Your task to perform on an android device: change keyboard looks Image 0: 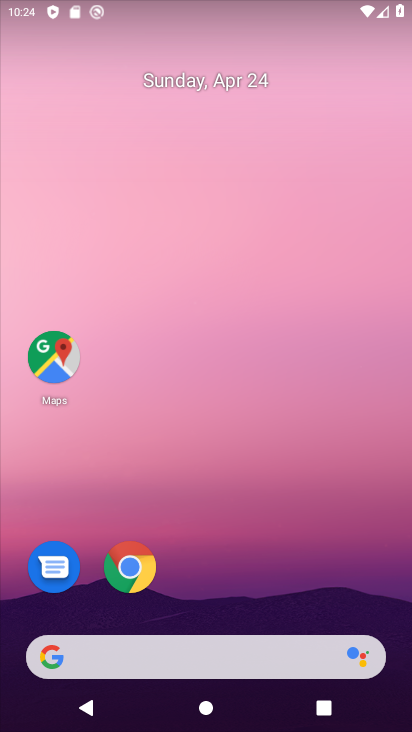
Step 0: drag from (9, 708) to (224, 98)
Your task to perform on an android device: change keyboard looks Image 1: 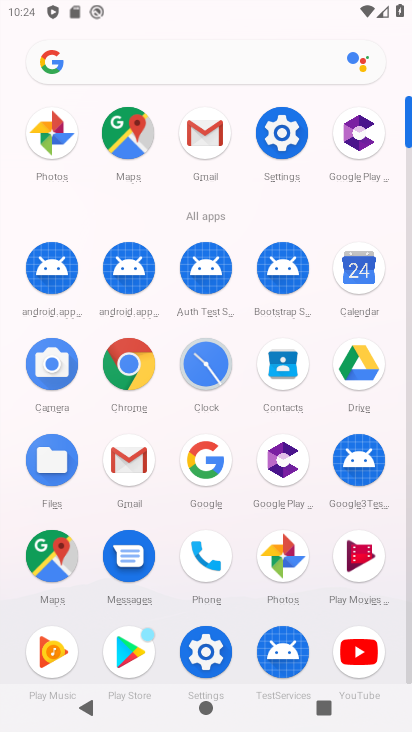
Step 1: click (193, 642)
Your task to perform on an android device: change keyboard looks Image 2: 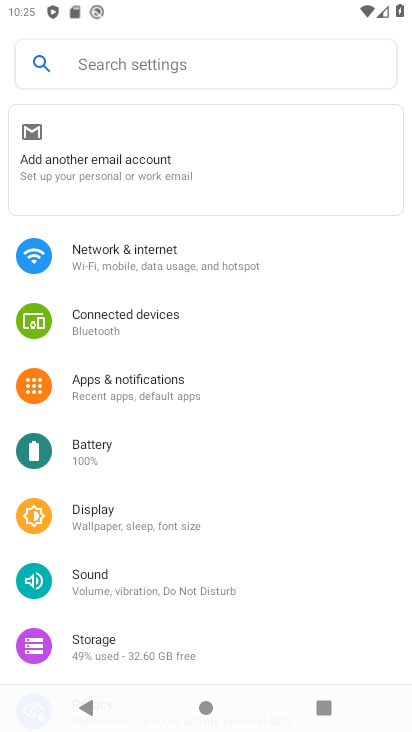
Step 2: drag from (121, 614) to (133, 268)
Your task to perform on an android device: change keyboard looks Image 3: 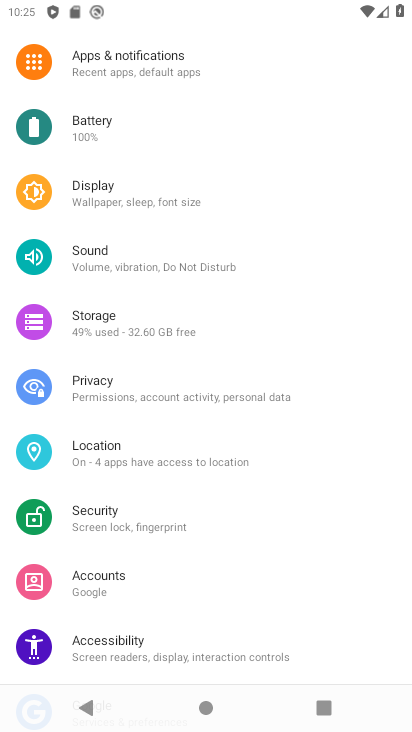
Step 3: click (157, 649)
Your task to perform on an android device: change keyboard looks Image 4: 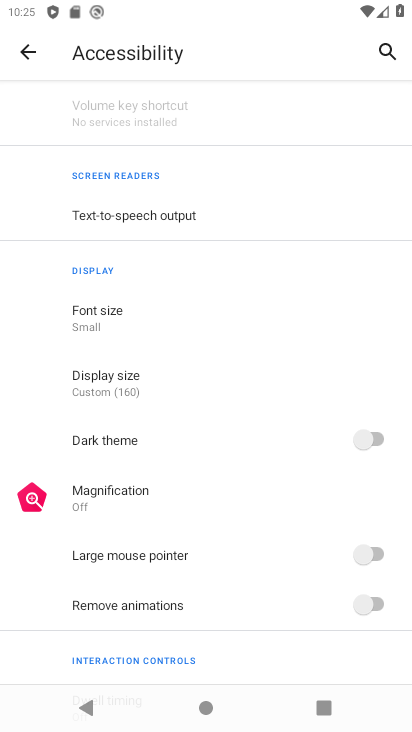
Step 4: press back button
Your task to perform on an android device: change keyboard looks Image 5: 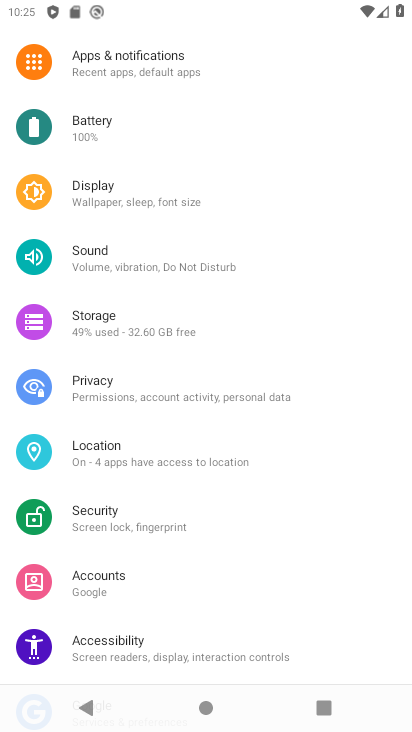
Step 5: drag from (192, 631) to (258, 151)
Your task to perform on an android device: change keyboard looks Image 6: 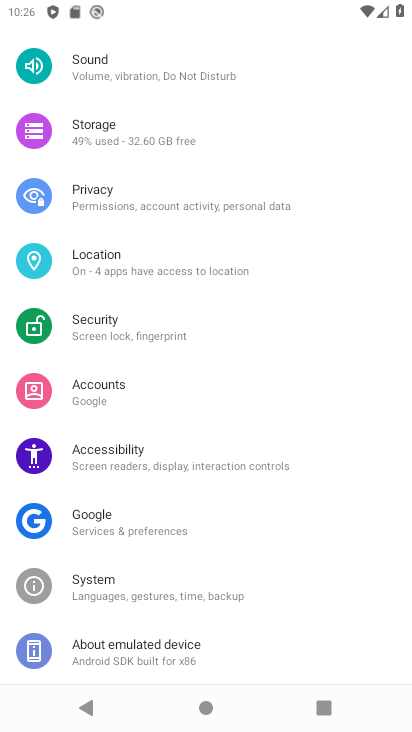
Step 6: click (218, 584)
Your task to perform on an android device: change keyboard looks Image 7: 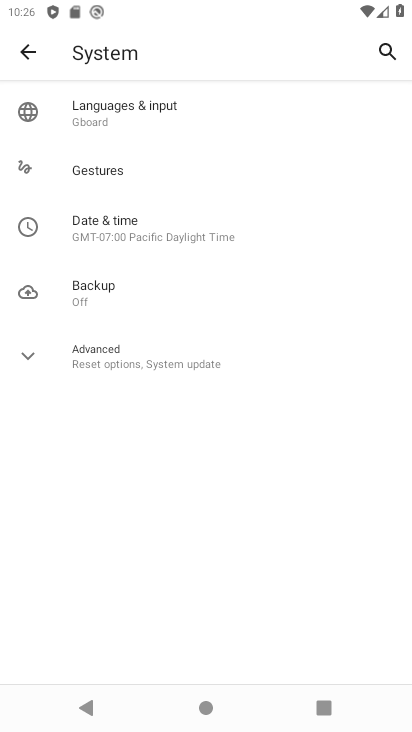
Step 7: click (142, 109)
Your task to perform on an android device: change keyboard looks Image 8: 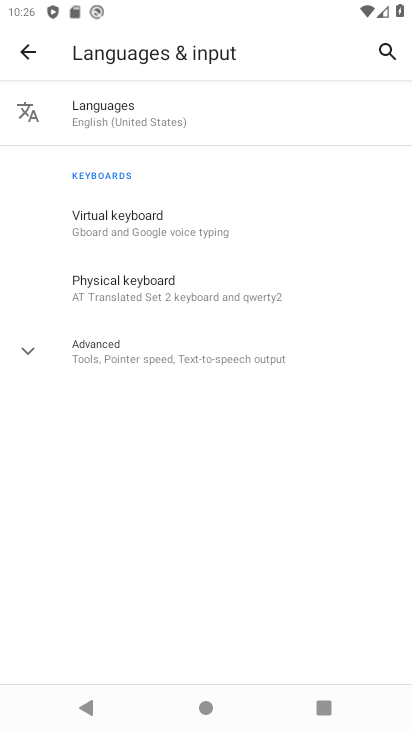
Step 8: click (135, 230)
Your task to perform on an android device: change keyboard looks Image 9: 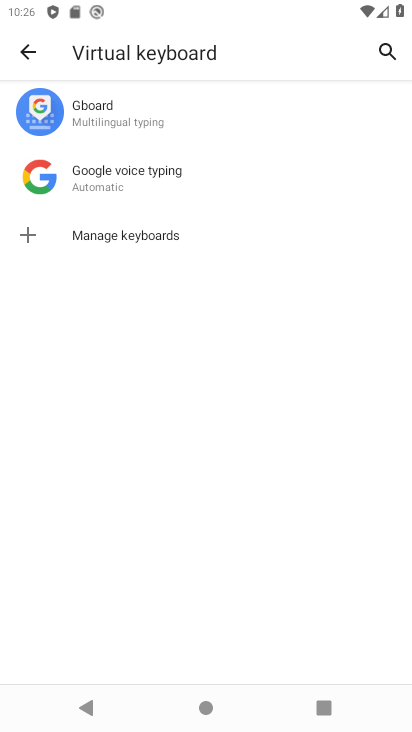
Step 9: click (151, 116)
Your task to perform on an android device: change keyboard looks Image 10: 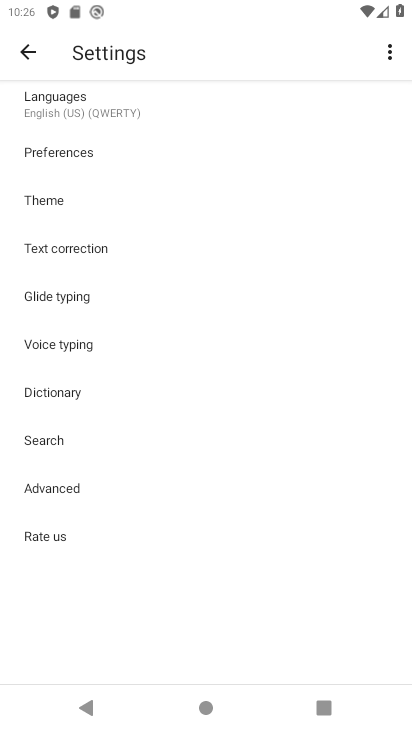
Step 10: click (80, 196)
Your task to perform on an android device: change keyboard looks Image 11: 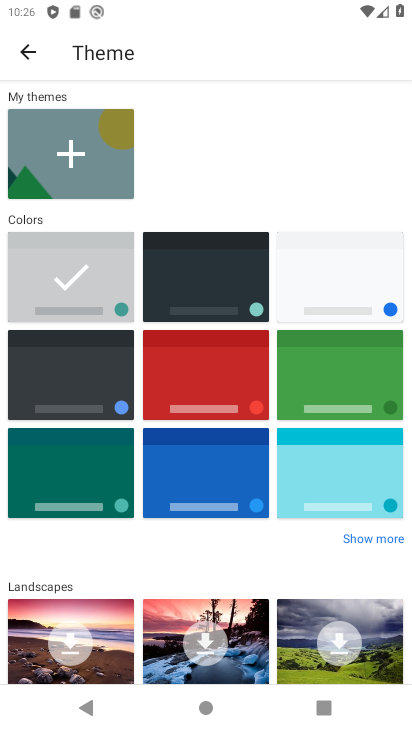
Step 11: click (171, 273)
Your task to perform on an android device: change keyboard looks Image 12: 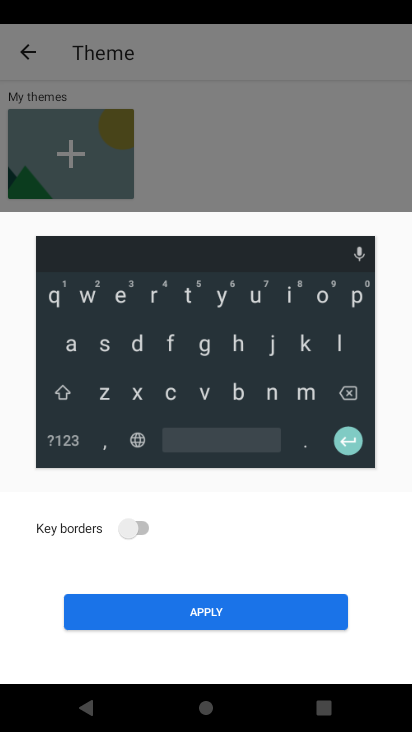
Step 12: click (296, 612)
Your task to perform on an android device: change keyboard looks Image 13: 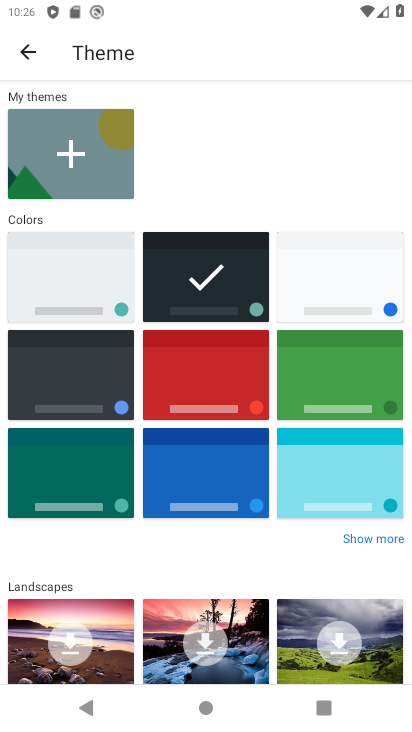
Step 13: task complete